Your task to perform on an android device: change notification settings in the gmail app Image 0: 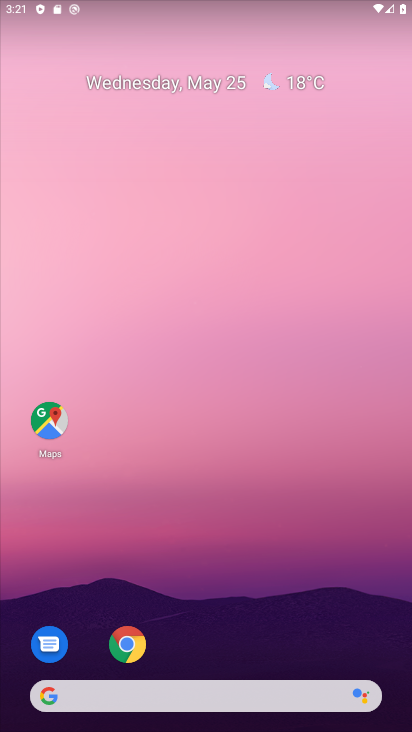
Step 0: drag from (218, 648) to (216, 116)
Your task to perform on an android device: change notification settings in the gmail app Image 1: 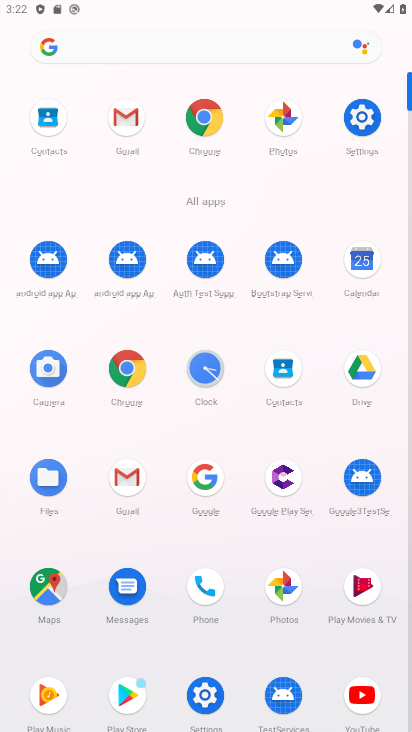
Step 1: click (126, 118)
Your task to perform on an android device: change notification settings in the gmail app Image 2: 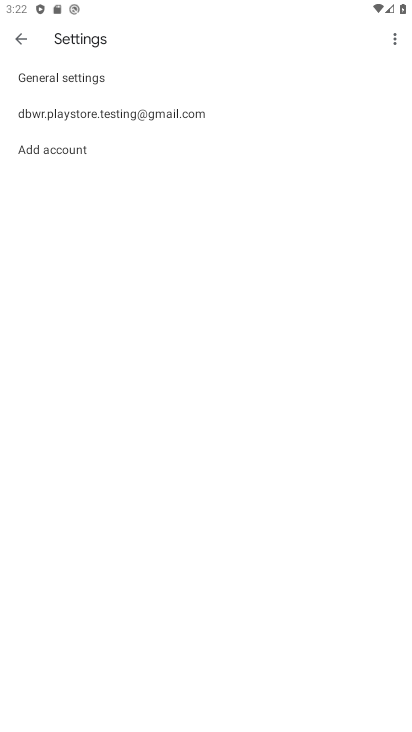
Step 2: click (91, 106)
Your task to perform on an android device: change notification settings in the gmail app Image 3: 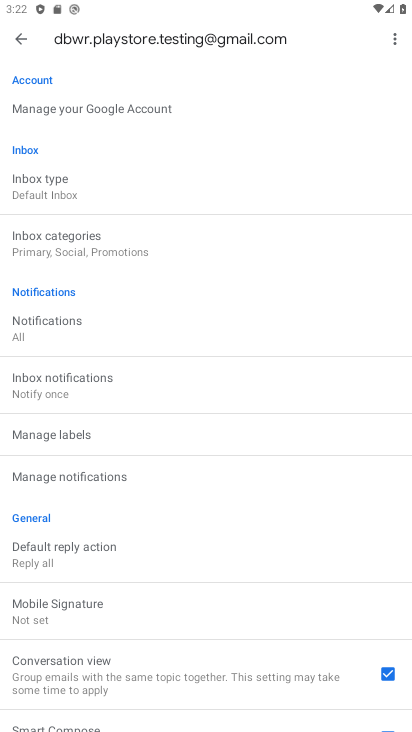
Step 3: click (108, 475)
Your task to perform on an android device: change notification settings in the gmail app Image 4: 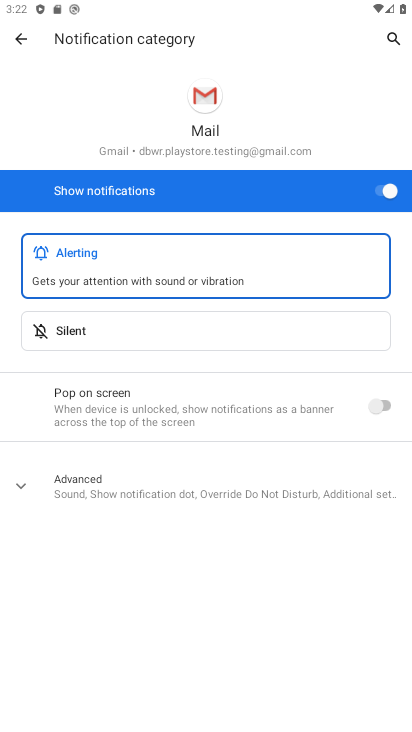
Step 4: click (382, 191)
Your task to perform on an android device: change notification settings in the gmail app Image 5: 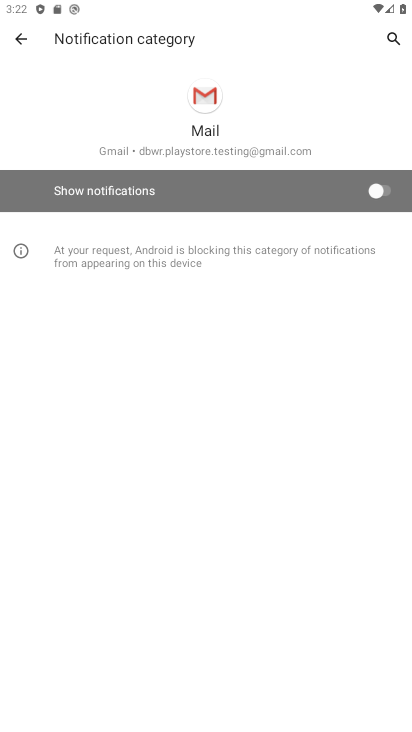
Step 5: task complete